Your task to perform on an android device: change the clock display to analog Image 0: 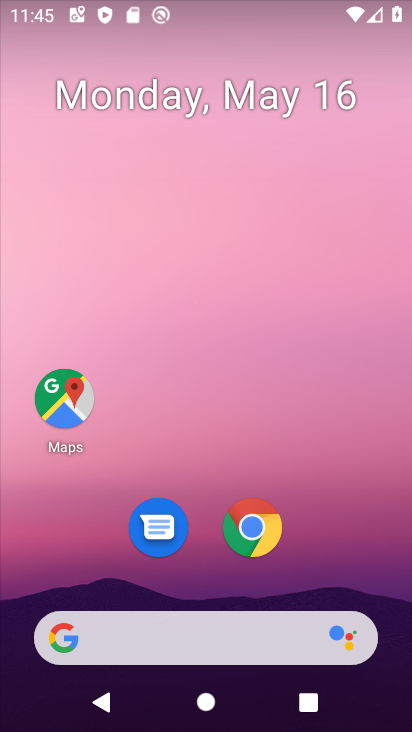
Step 0: press home button
Your task to perform on an android device: change the clock display to analog Image 1: 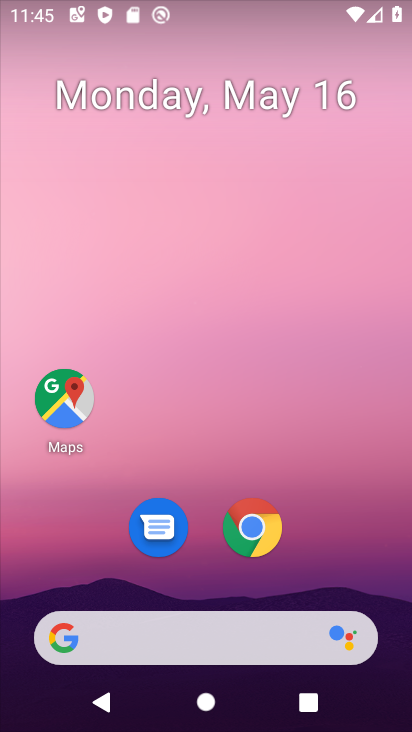
Step 1: drag from (259, 500) to (385, 70)
Your task to perform on an android device: change the clock display to analog Image 2: 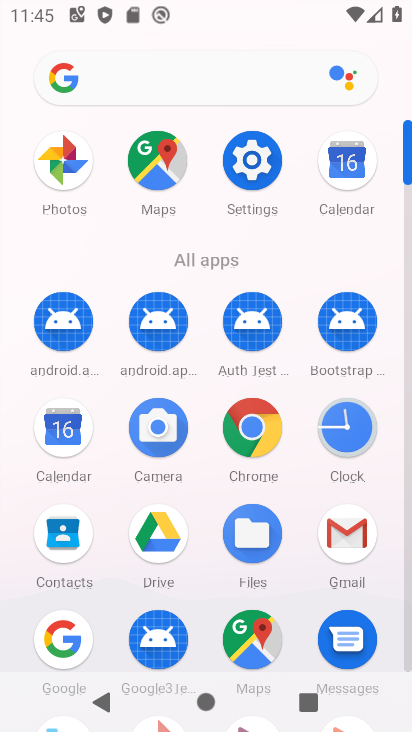
Step 2: click (347, 445)
Your task to perform on an android device: change the clock display to analog Image 3: 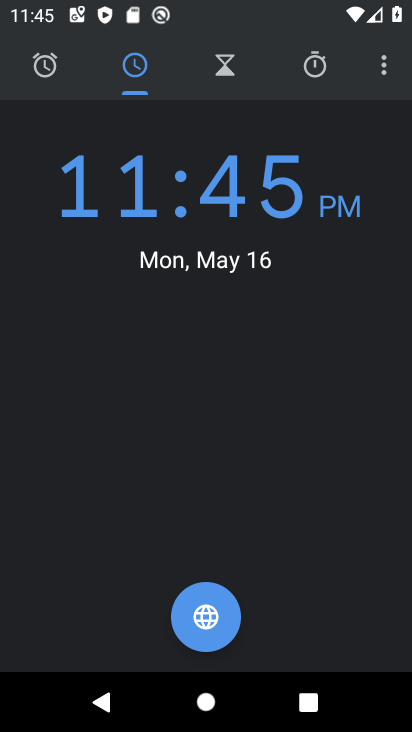
Step 3: click (388, 77)
Your task to perform on an android device: change the clock display to analog Image 4: 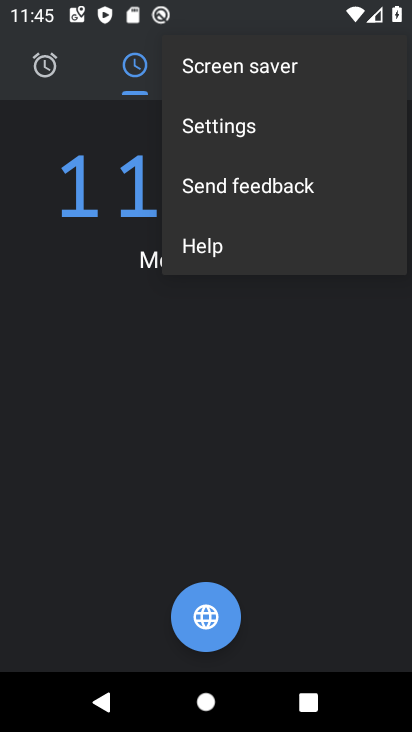
Step 4: click (258, 127)
Your task to perform on an android device: change the clock display to analog Image 5: 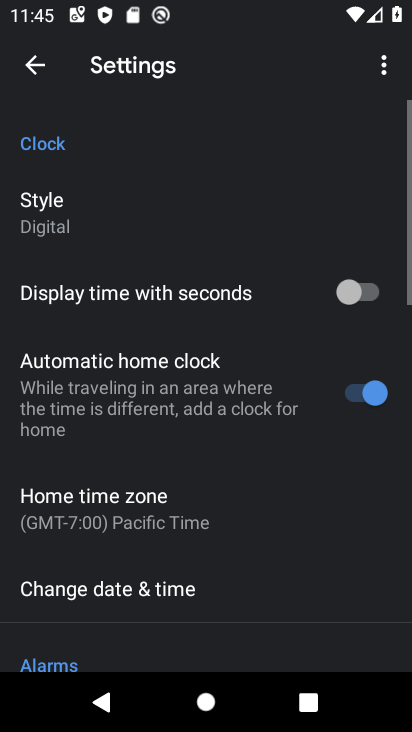
Step 5: click (36, 219)
Your task to perform on an android device: change the clock display to analog Image 6: 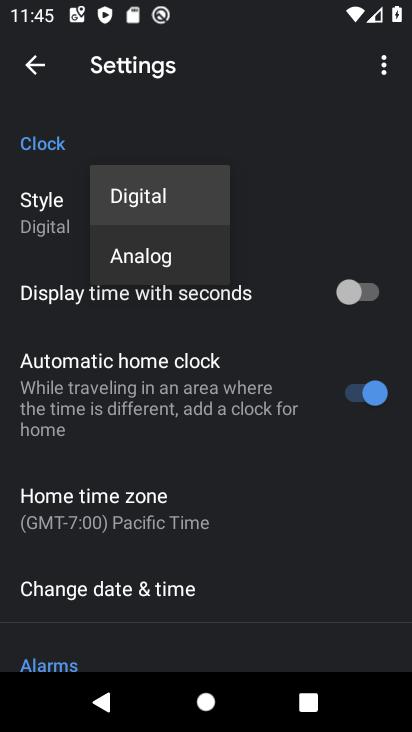
Step 6: click (155, 262)
Your task to perform on an android device: change the clock display to analog Image 7: 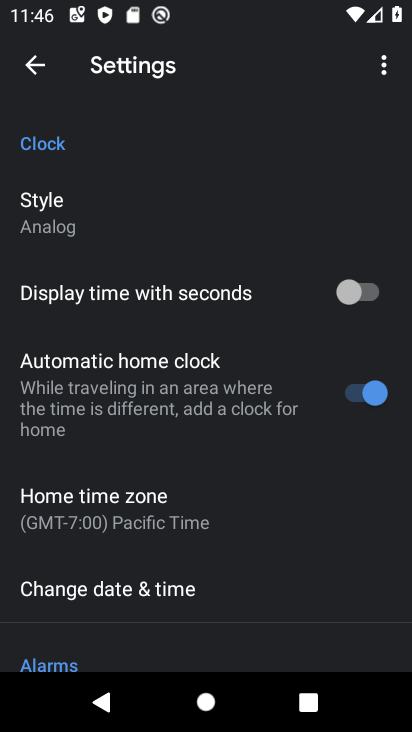
Step 7: task complete